Your task to perform on an android device: move an email to a new category in the gmail app Image 0: 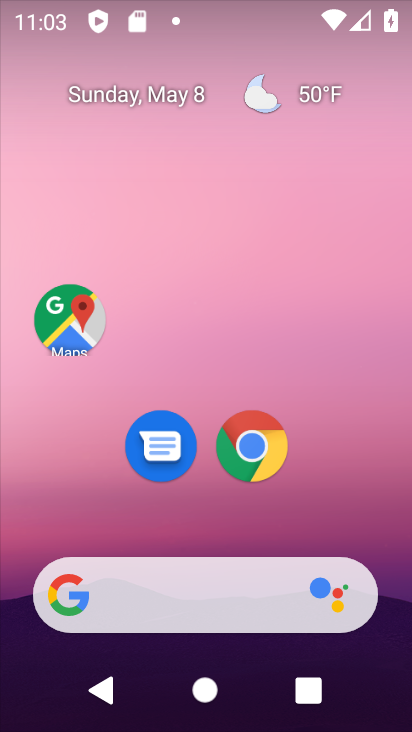
Step 0: drag from (312, 536) to (304, 6)
Your task to perform on an android device: move an email to a new category in the gmail app Image 1: 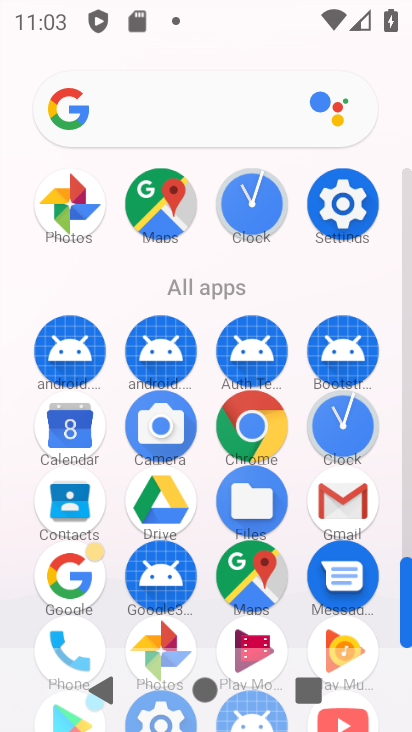
Step 1: click (345, 507)
Your task to perform on an android device: move an email to a new category in the gmail app Image 2: 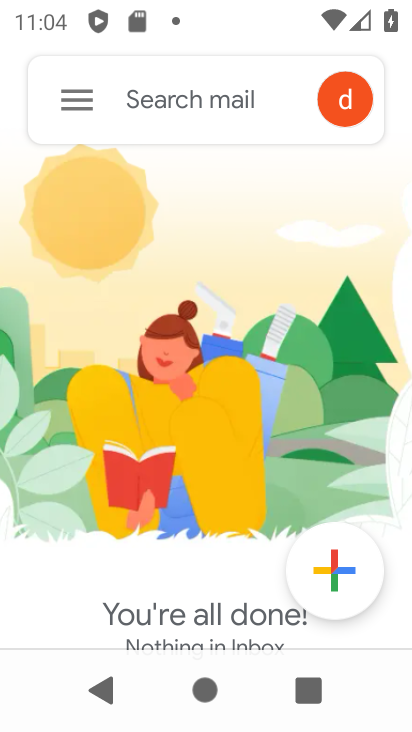
Step 2: click (90, 99)
Your task to perform on an android device: move an email to a new category in the gmail app Image 3: 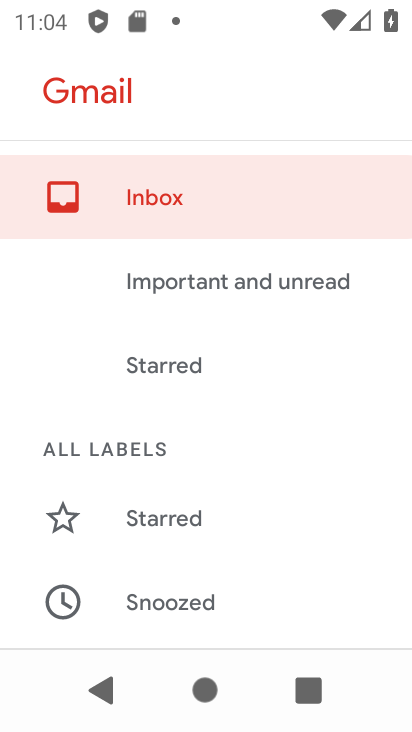
Step 3: drag from (165, 549) to (132, 227)
Your task to perform on an android device: move an email to a new category in the gmail app Image 4: 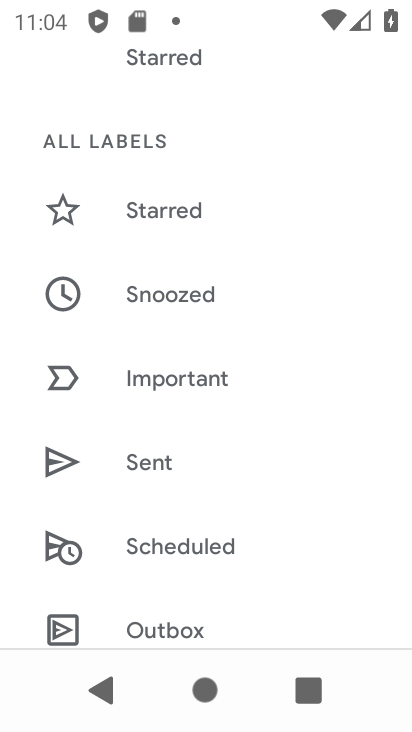
Step 4: drag from (184, 540) to (193, 341)
Your task to perform on an android device: move an email to a new category in the gmail app Image 5: 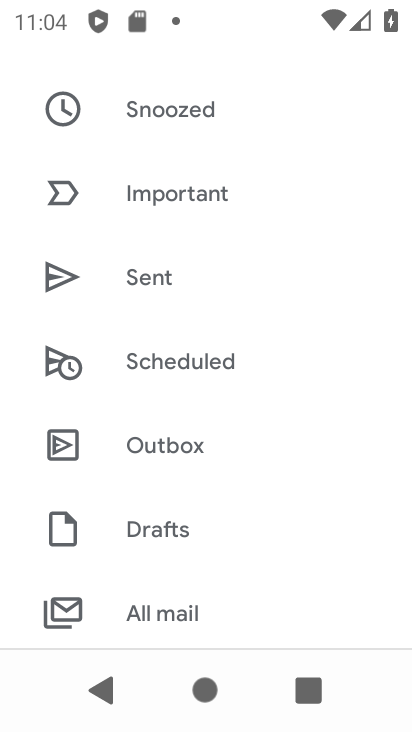
Step 5: click (196, 612)
Your task to perform on an android device: move an email to a new category in the gmail app Image 6: 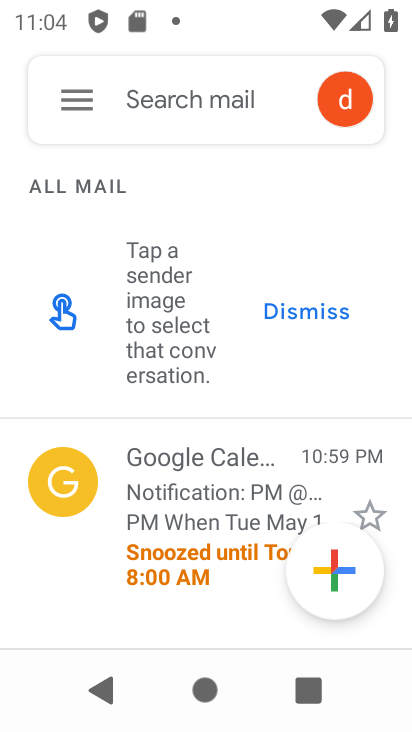
Step 6: drag from (137, 586) to (148, 272)
Your task to perform on an android device: move an email to a new category in the gmail app Image 7: 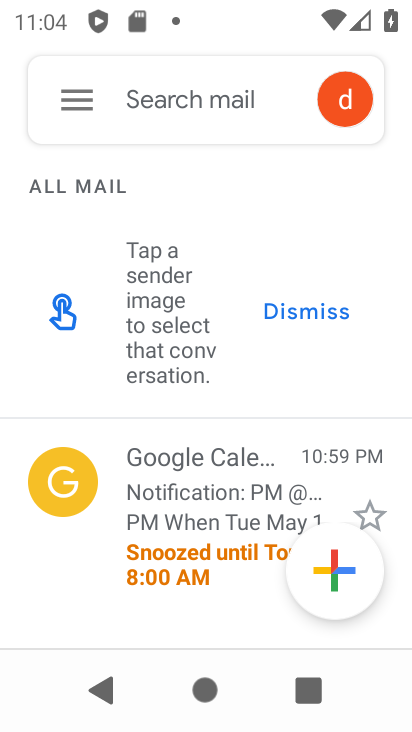
Step 7: click (201, 477)
Your task to perform on an android device: move an email to a new category in the gmail app Image 8: 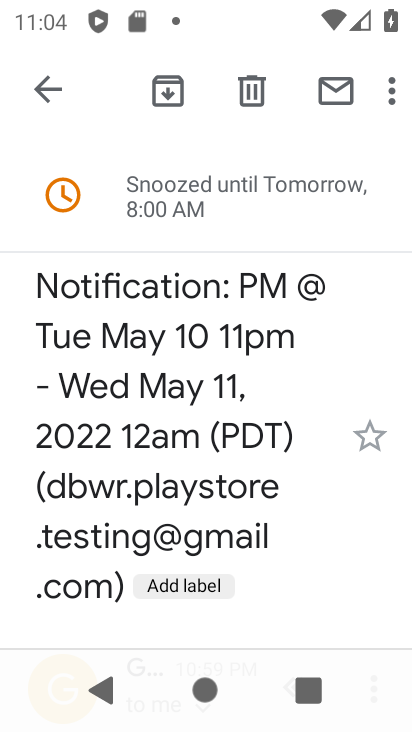
Step 8: click (368, 431)
Your task to perform on an android device: move an email to a new category in the gmail app Image 9: 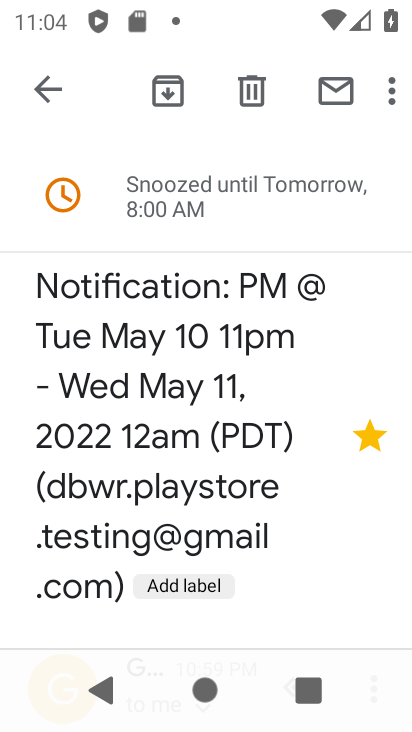
Step 9: task complete